Your task to perform on an android device: Clear the cart on amazon. Search for "usb-a to usb-b" on amazon, select the first entry, and add it to the cart. Image 0: 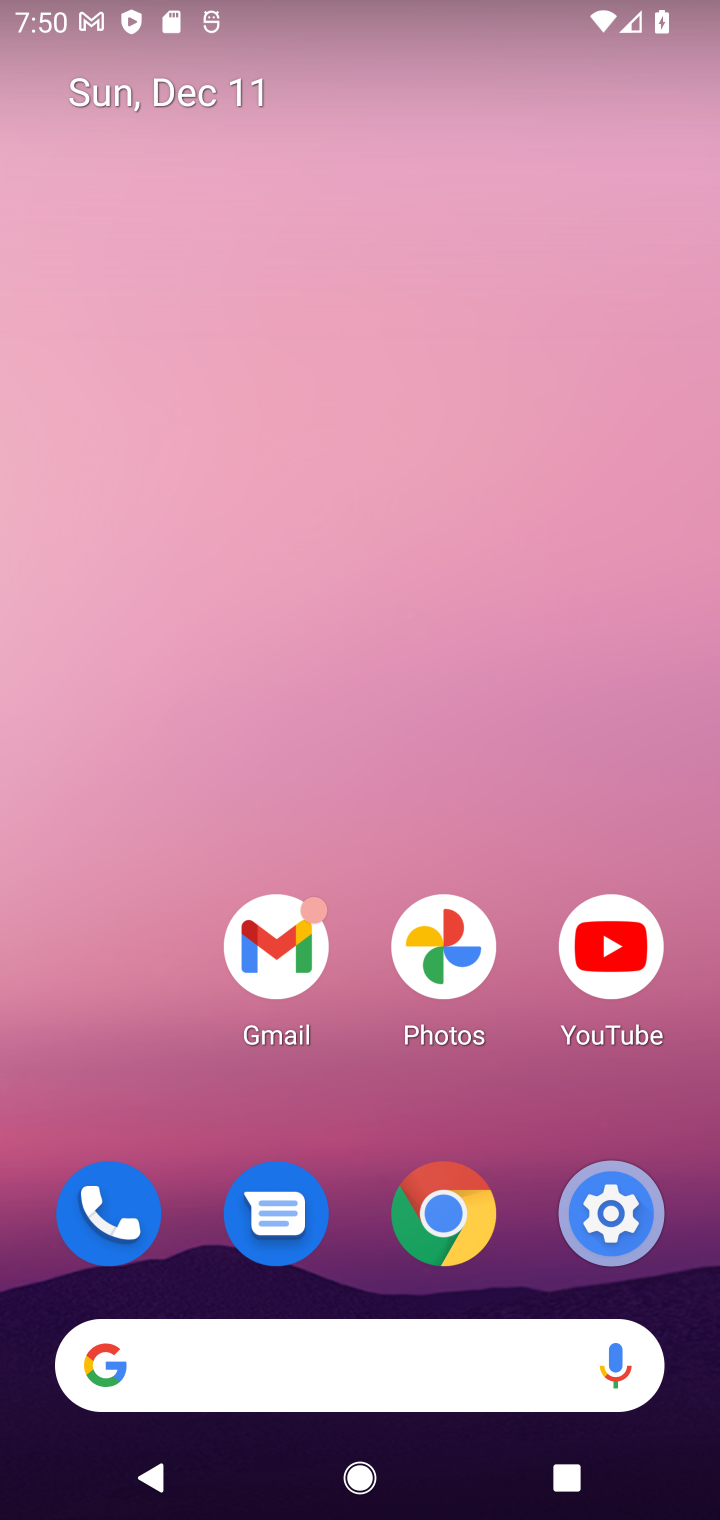
Step 0: click (376, 1370)
Your task to perform on an android device: Clear the cart on amazon. Search for "usb-a to usb-b" on amazon, select the first entry, and add it to the cart. Image 1: 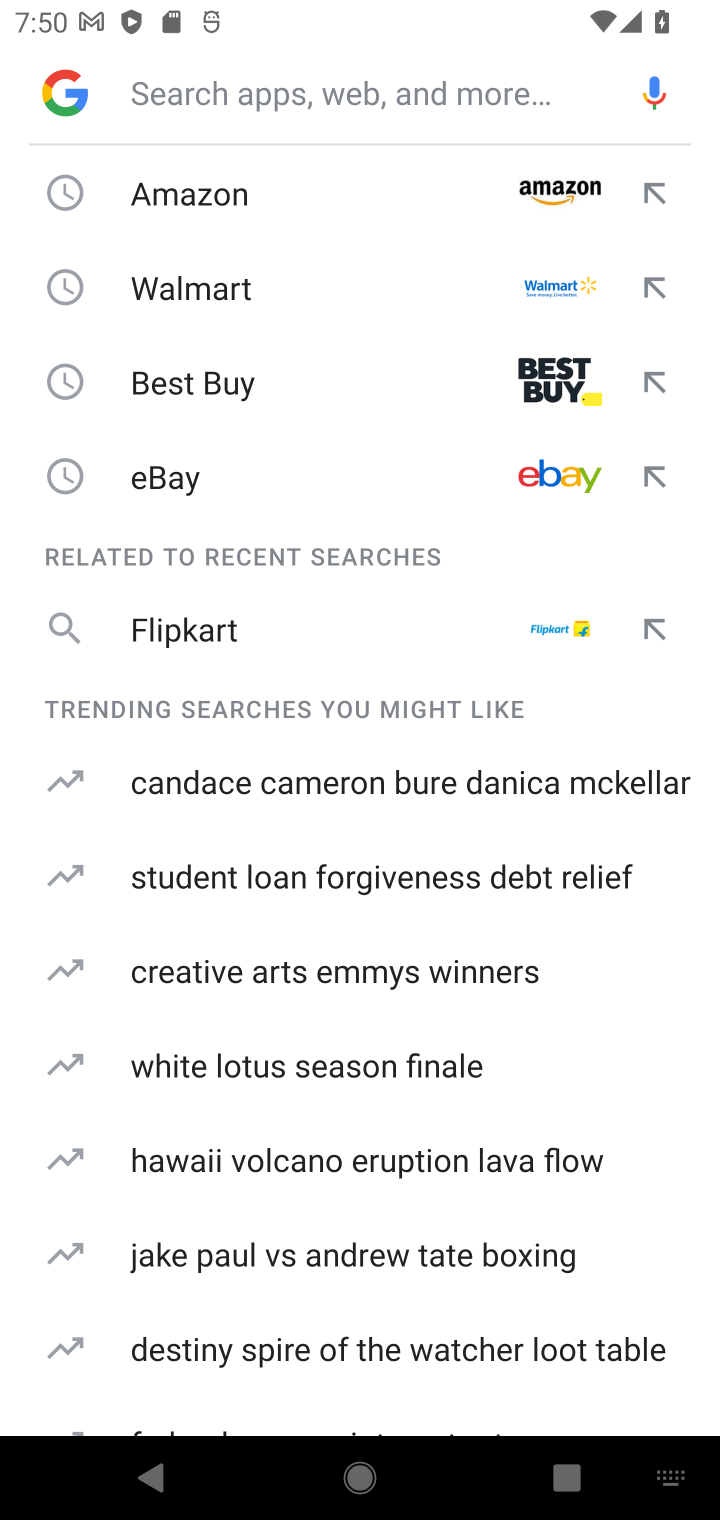
Step 1: click (316, 187)
Your task to perform on an android device: Clear the cart on amazon. Search for "usb-a to usb-b" on amazon, select the first entry, and add it to the cart. Image 2: 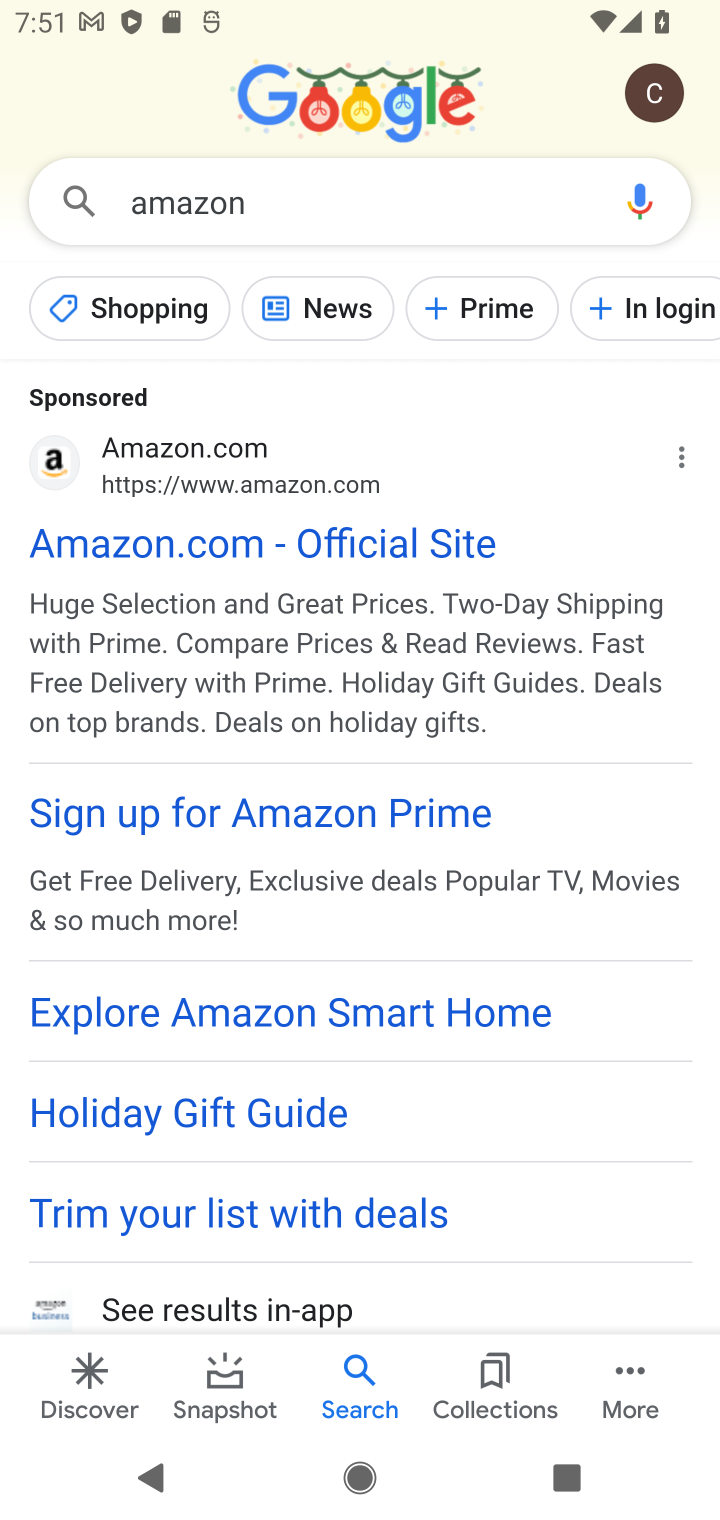
Step 2: click (393, 553)
Your task to perform on an android device: Clear the cart on amazon. Search for "usb-a to usb-b" on amazon, select the first entry, and add it to the cart. Image 3: 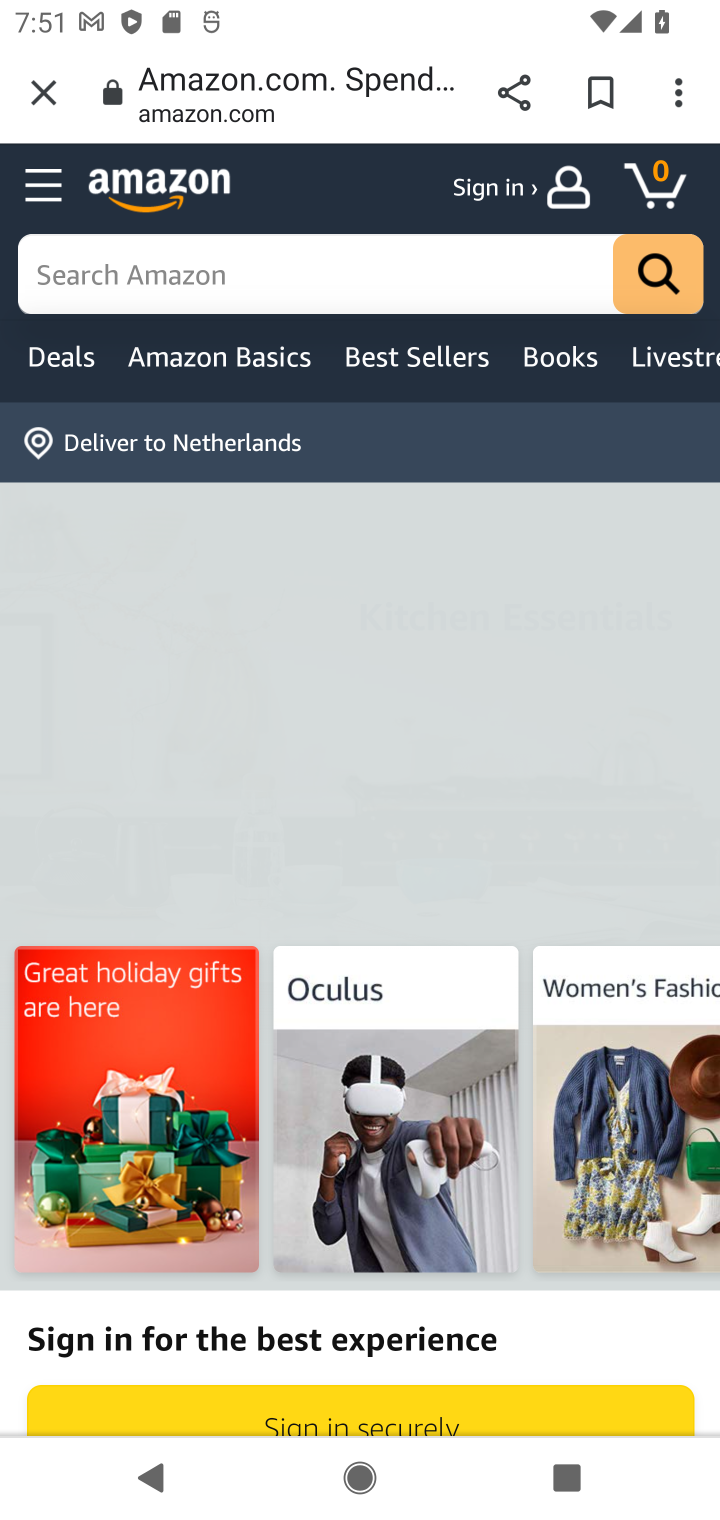
Step 3: click (422, 298)
Your task to perform on an android device: Clear the cart on amazon. Search for "usb-a to usb-b" on amazon, select the first entry, and add it to the cart. Image 4: 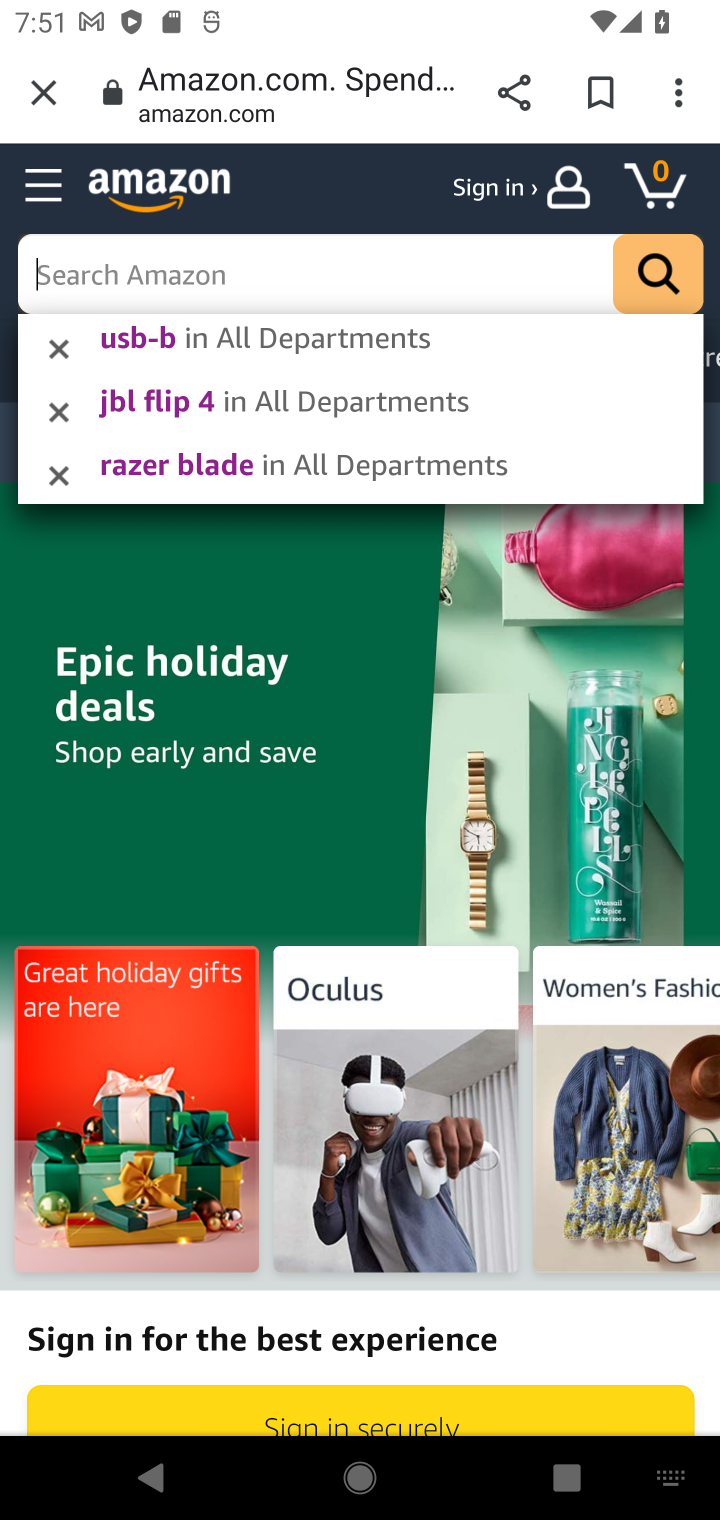
Step 4: type "usb-a to usb-b"
Your task to perform on an android device: Clear the cart on amazon. Search for "usb-a to usb-b" on amazon, select the first entry, and add it to the cart. Image 5: 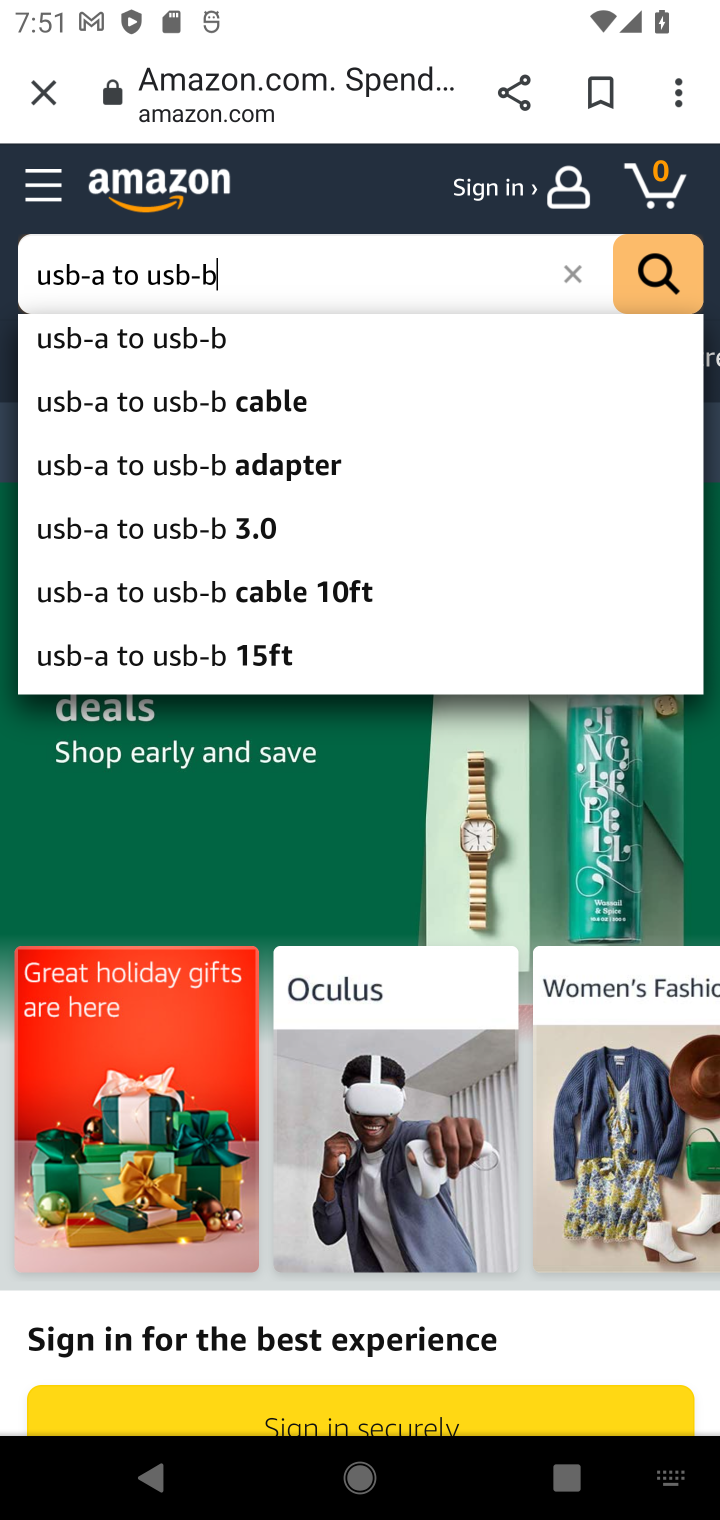
Step 5: click (130, 360)
Your task to perform on an android device: Clear the cart on amazon. Search for "usb-a to usb-b" on amazon, select the first entry, and add it to the cart. Image 6: 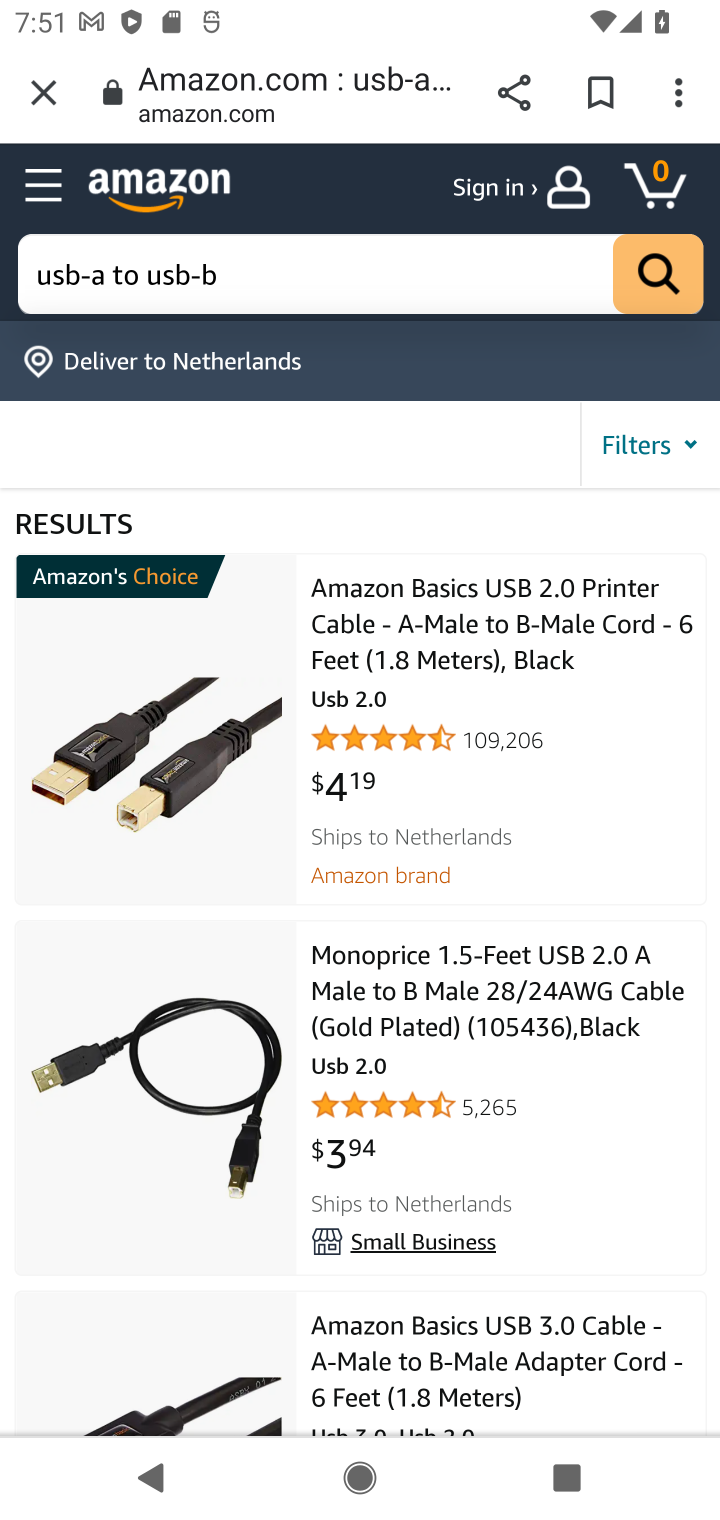
Step 6: click (382, 783)
Your task to perform on an android device: Clear the cart on amazon. Search for "usb-a to usb-b" on amazon, select the first entry, and add it to the cart. Image 7: 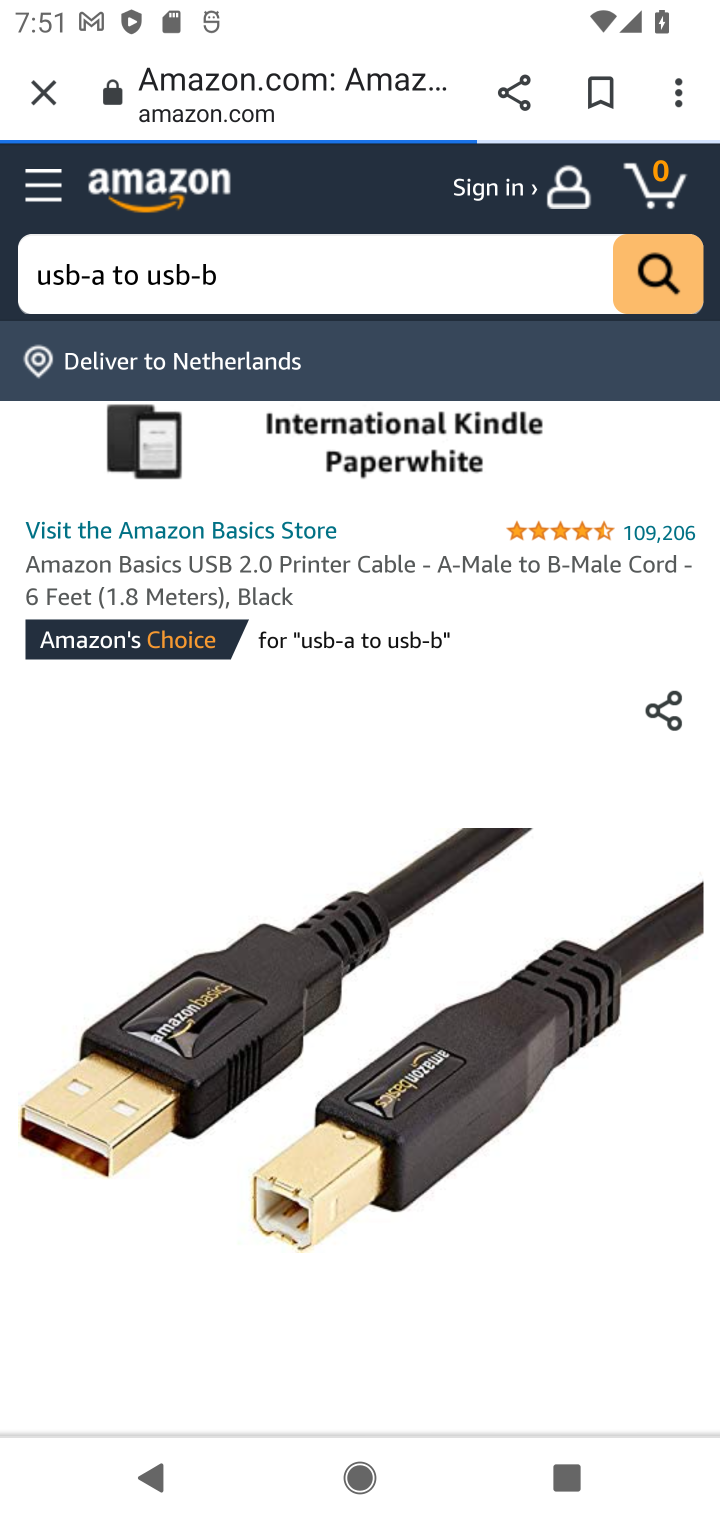
Step 7: drag from (490, 1253) to (544, 458)
Your task to perform on an android device: Clear the cart on amazon. Search for "usb-a to usb-b" on amazon, select the first entry, and add it to the cart. Image 8: 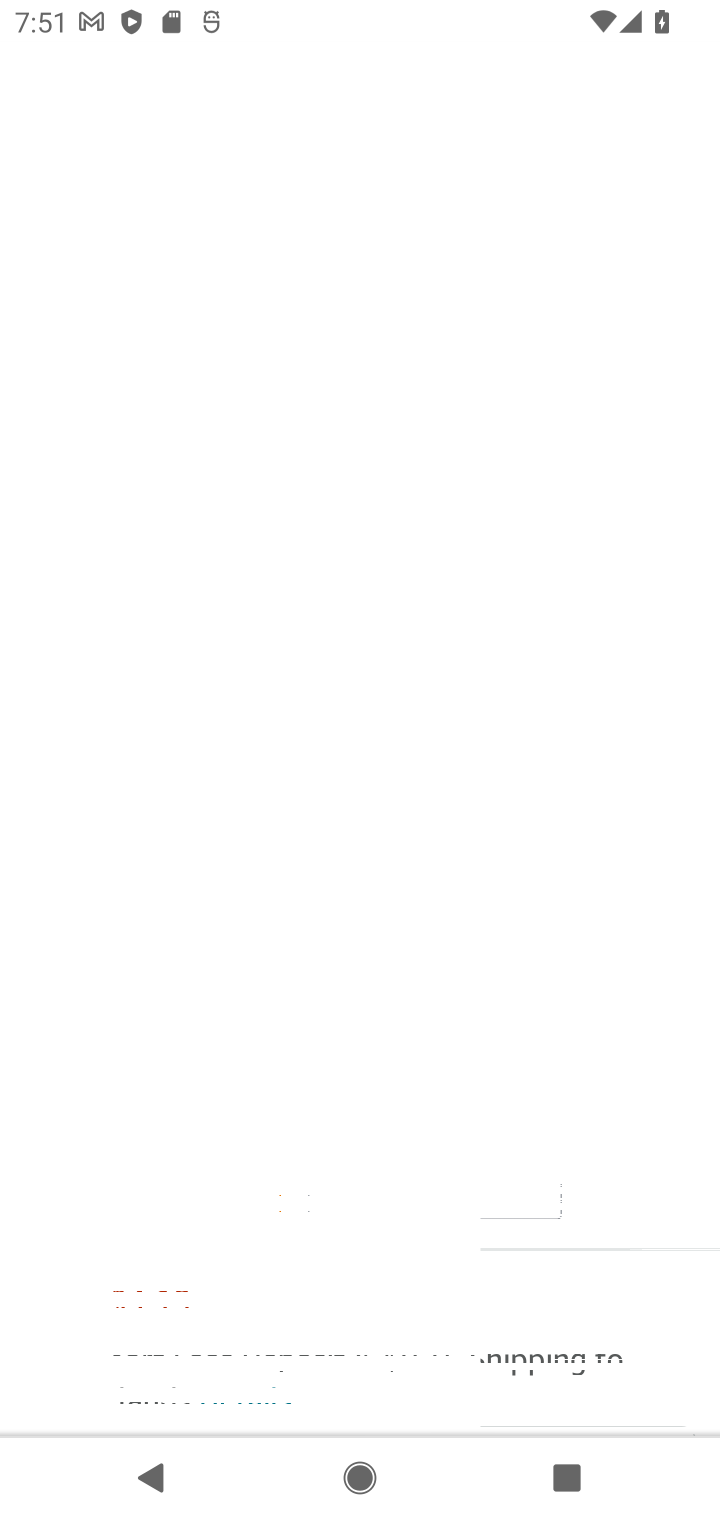
Step 8: drag from (593, 1183) to (592, 476)
Your task to perform on an android device: Clear the cart on amazon. Search for "usb-a to usb-b" on amazon, select the first entry, and add it to the cart. Image 9: 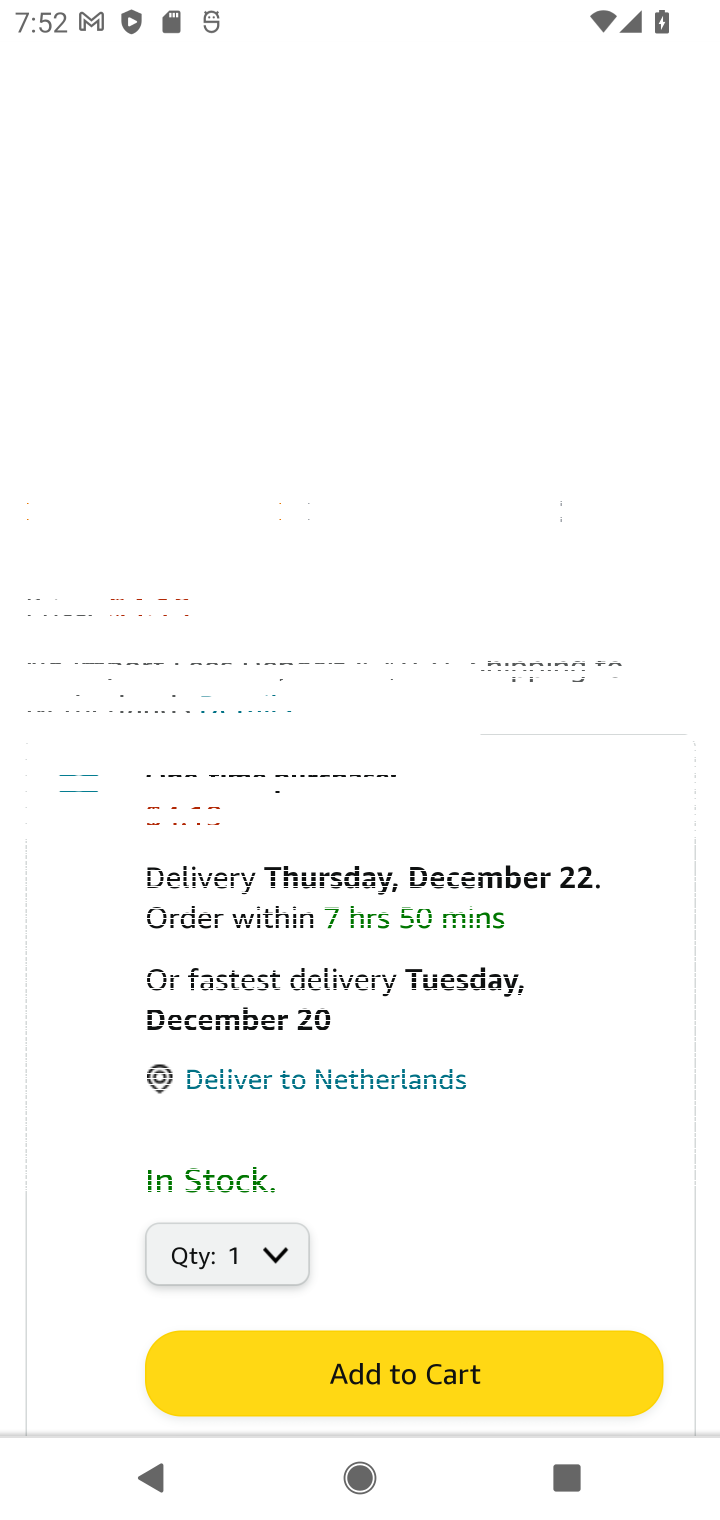
Step 9: click (351, 1397)
Your task to perform on an android device: Clear the cart on amazon. Search for "usb-a to usb-b" on amazon, select the first entry, and add it to the cart. Image 10: 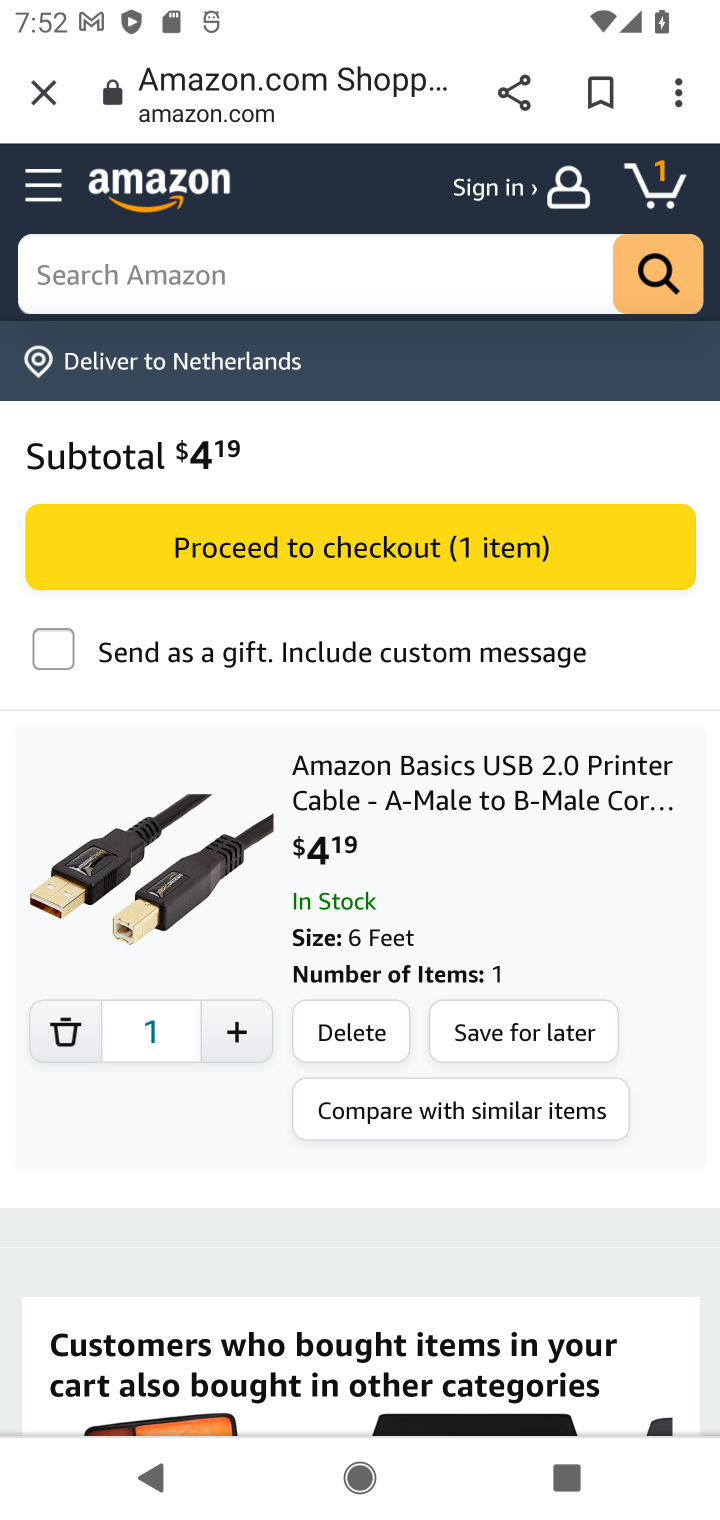
Step 10: task complete